Your task to perform on an android device: open wifi settings Image 0: 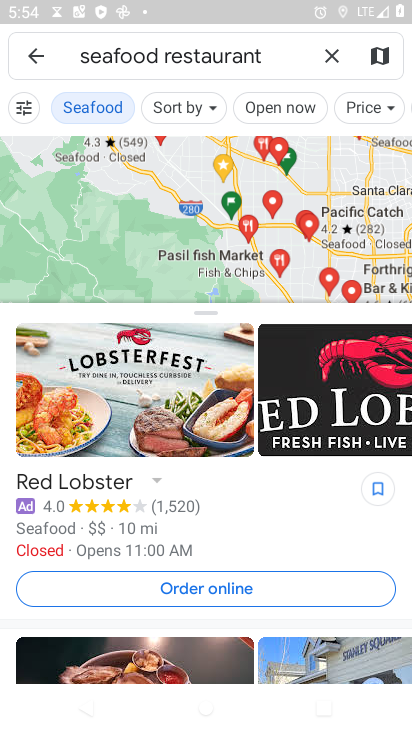
Step 0: press home button
Your task to perform on an android device: open wifi settings Image 1: 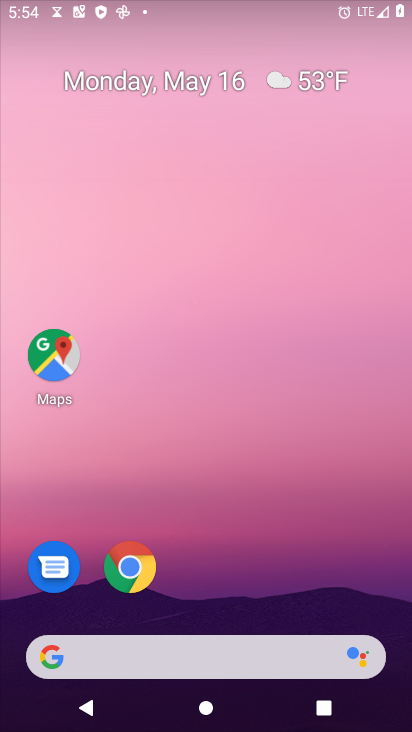
Step 1: drag from (315, 575) to (324, 97)
Your task to perform on an android device: open wifi settings Image 2: 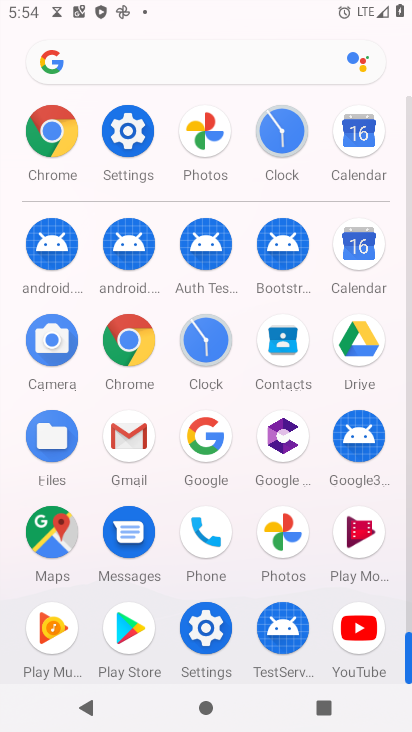
Step 2: click (131, 123)
Your task to perform on an android device: open wifi settings Image 3: 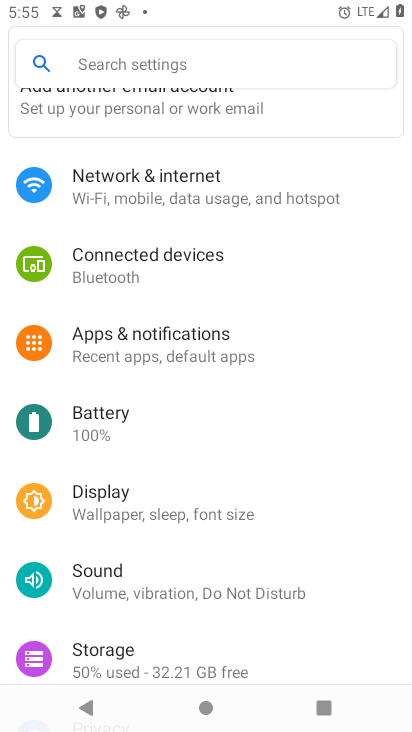
Step 3: click (262, 180)
Your task to perform on an android device: open wifi settings Image 4: 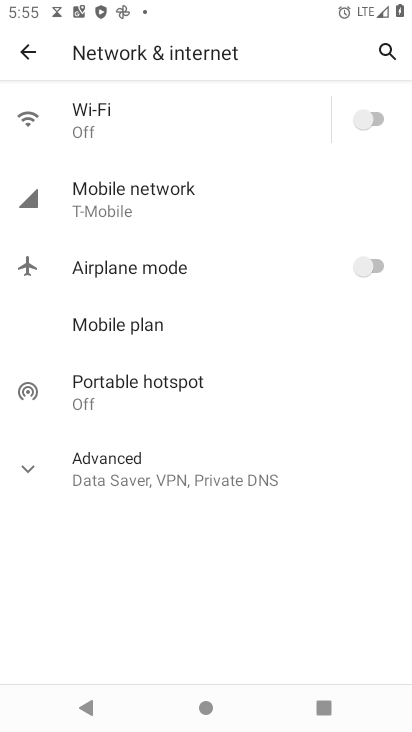
Step 4: click (158, 105)
Your task to perform on an android device: open wifi settings Image 5: 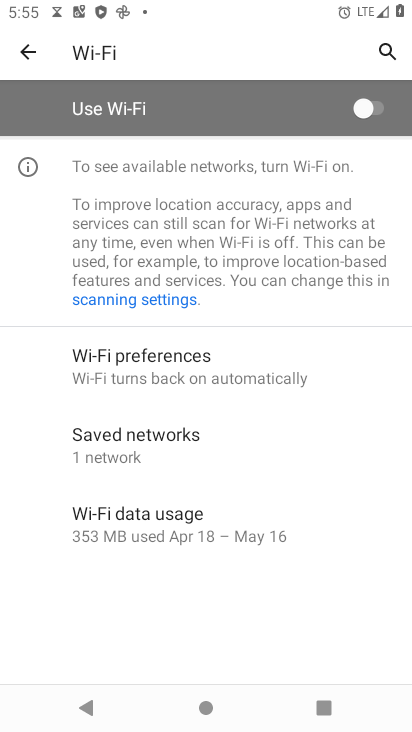
Step 5: task complete